Your task to perform on an android device: Show me popular games on the Play Store Image 0: 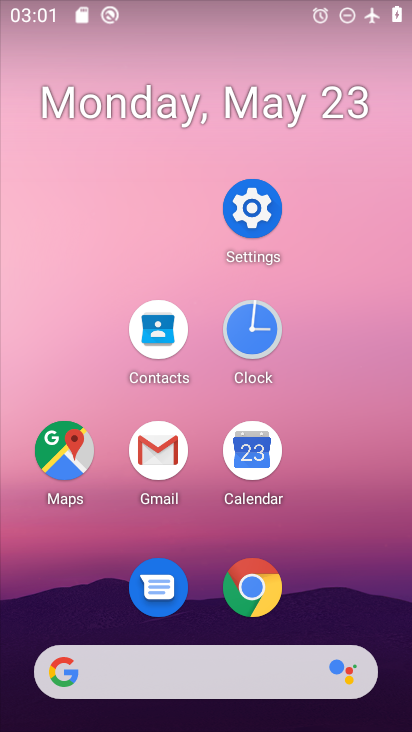
Step 0: click (363, 596)
Your task to perform on an android device: Show me popular games on the Play Store Image 1: 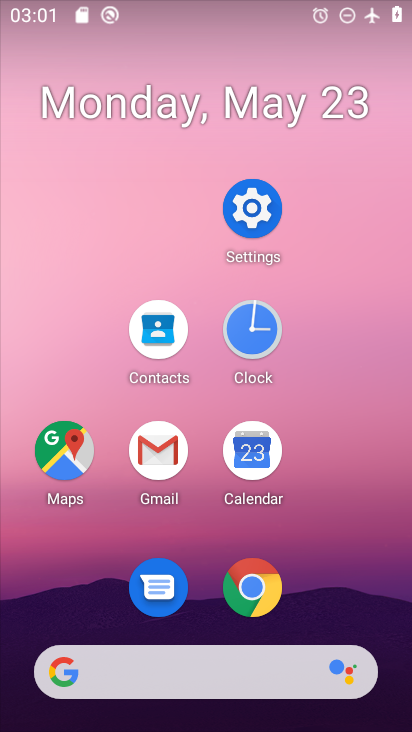
Step 1: click (249, 202)
Your task to perform on an android device: Show me popular games on the Play Store Image 2: 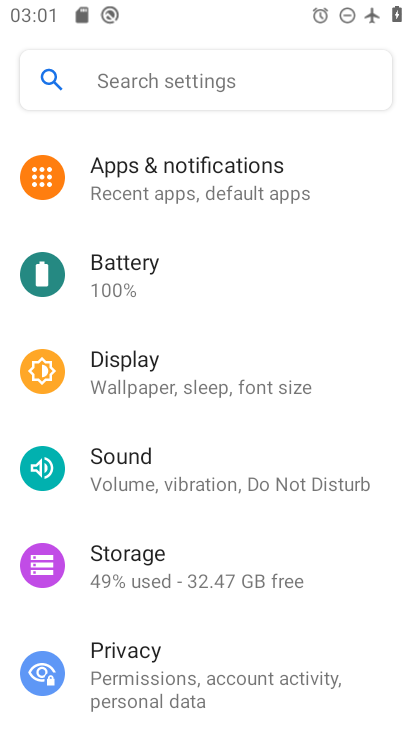
Step 2: drag from (249, 693) to (262, 366)
Your task to perform on an android device: Show me popular games on the Play Store Image 3: 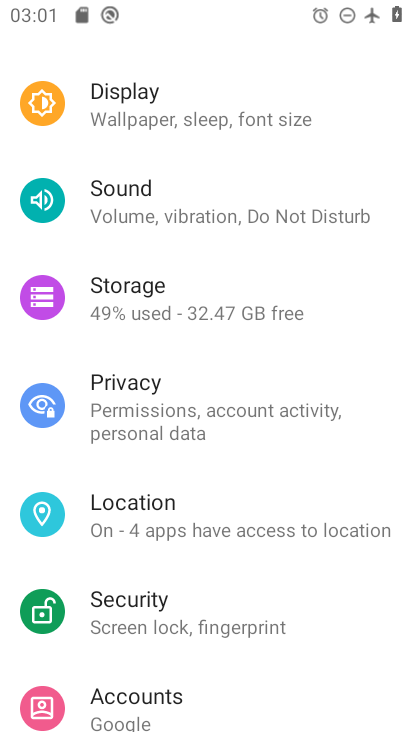
Step 3: drag from (209, 290) to (191, 661)
Your task to perform on an android device: Show me popular games on the Play Store Image 4: 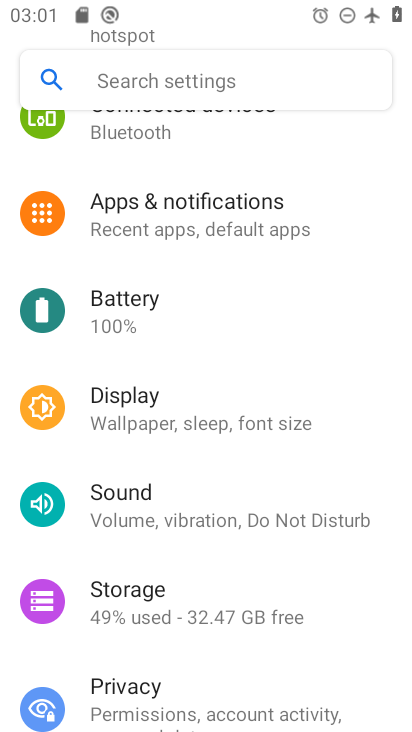
Step 4: drag from (230, 208) to (212, 722)
Your task to perform on an android device: Show me popular games on the Play Store Image 5: 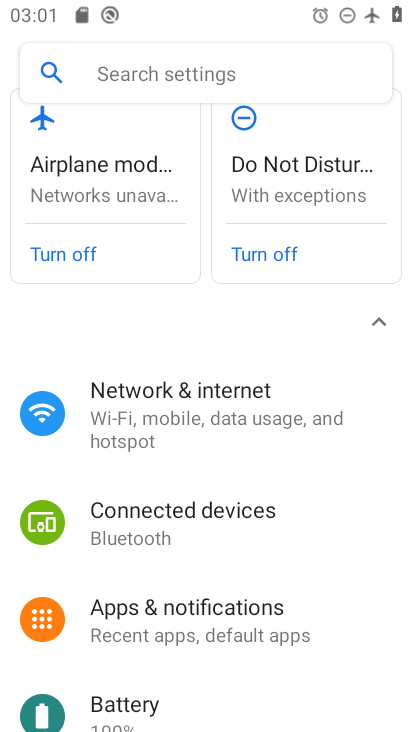
Step 5: click (236, 413)
Your task to perform on an android device: Show me popular games on the Play Store Image 6: 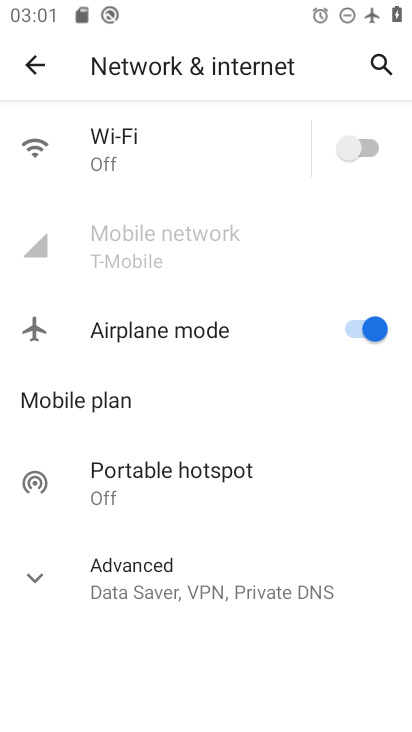
Step 6: click (362, 323)
Your task to perform on an android device: Show me popular games on the Play Store Image 7: 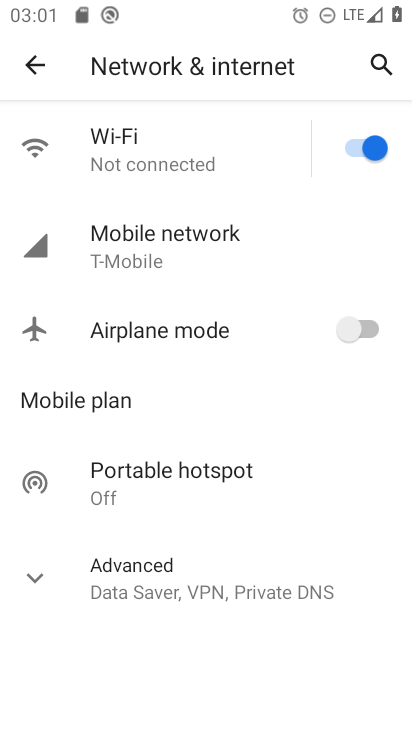
Step 7: click (28, 64)
Your task to perform on an android device: Show me popular games on the Play Store Image 8: 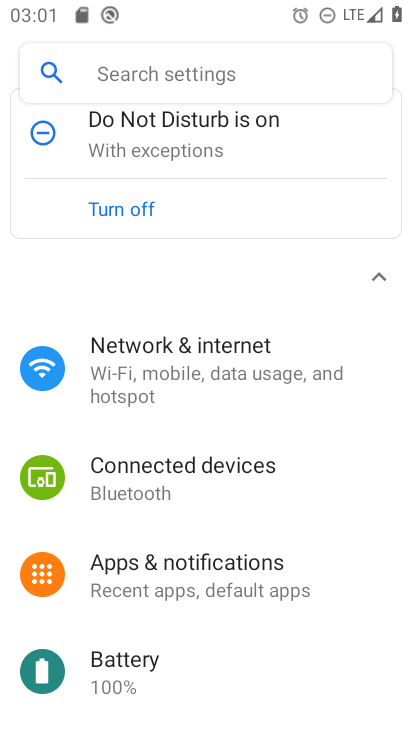
Step 8: drag from (194, 590) to (305, 294)
Your task to perform on an android device: Show me popular games on the Play Store Image 9: 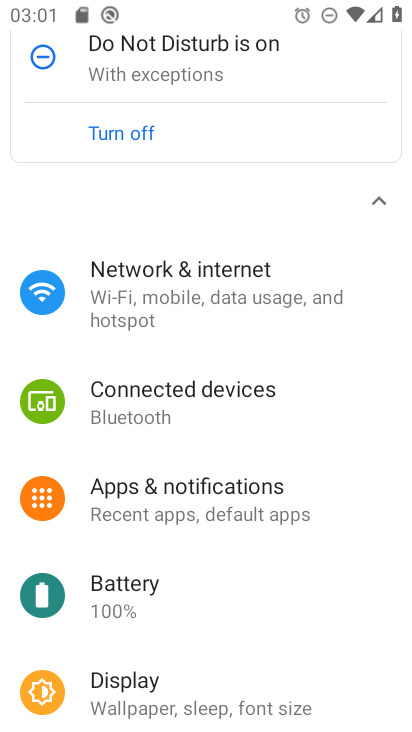
Step 9: press home button
Your task to perform on an android device: Show me popular games on the Play Store Image 10: 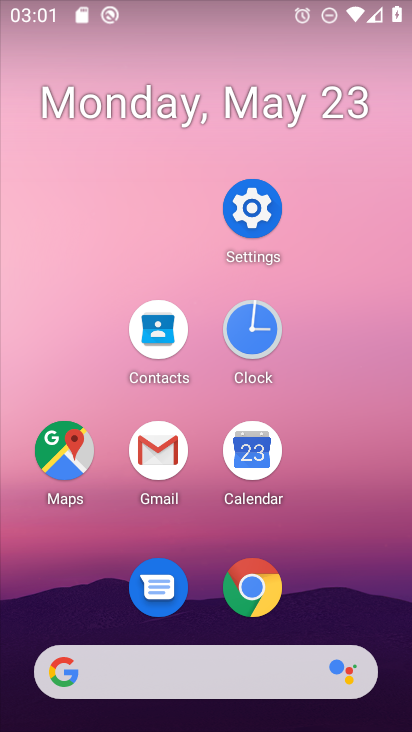
Step 10: drag from (347, 576) to (336, 250)
Your task to perform on an android device: Show me popular games on the Play Store Image 11: 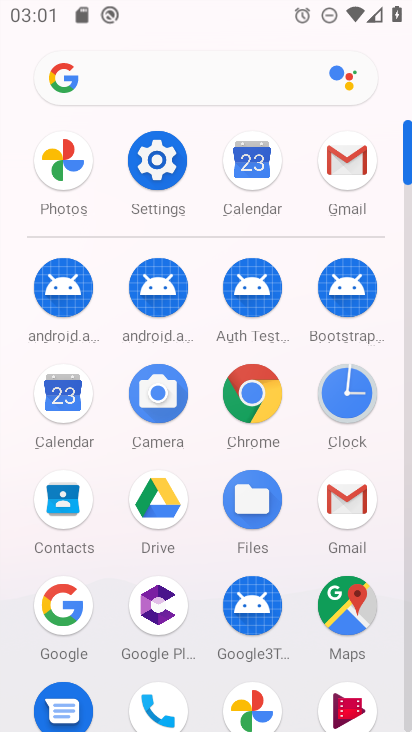
Step 11: click (408, 715)
Your task to perform on an android device: Show me popular games on the Play Store Image 12: 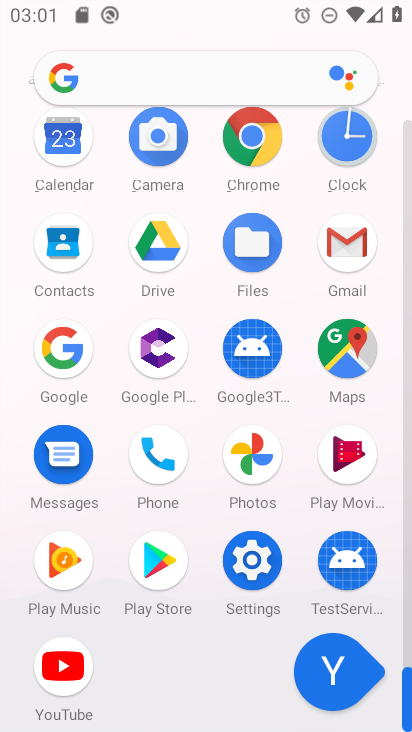
Step 12: click (408, 715)
Your task to perform on an android device: Show me popular games on the Play Store Image 13: 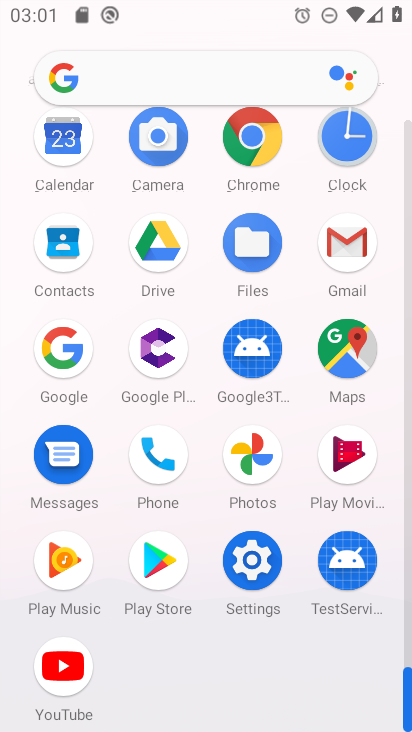
Step 13: click (132, 600)
Your task to perform on an android device: Show me popular games on the Play Store Image 14: 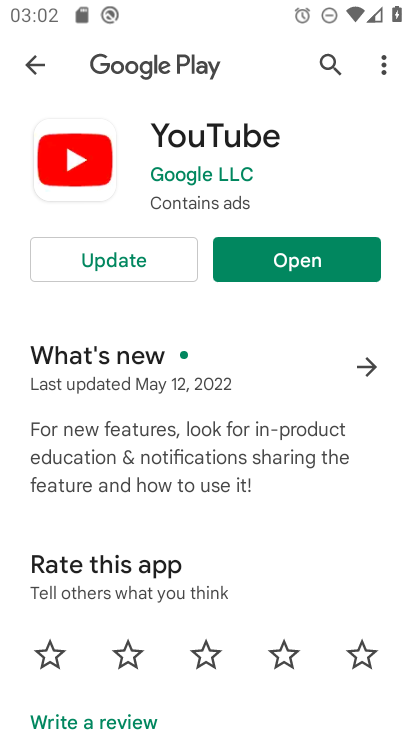
Step 14: click (55, 230)
Your task to perform on an android device: Show me popular games on the Play Store Image 15: 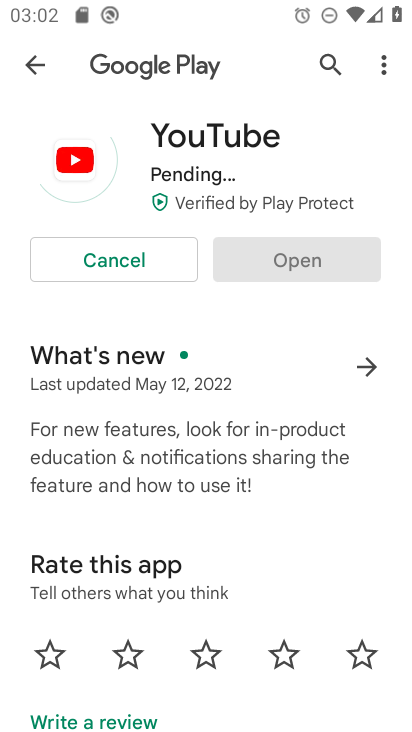
Step 15: click (62, 254)
Your task to perform on an android device: Show me popular games on the Play Store Image 16: 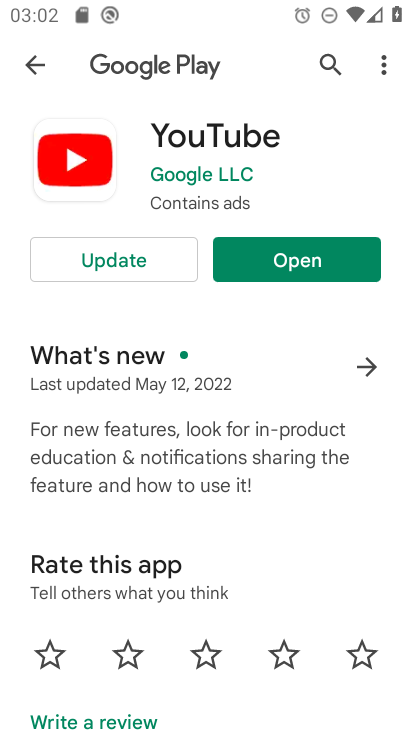
Step 16: click (74, 276)
Your task to perform on an android device: Show me popular games on the Play Store Image 17: 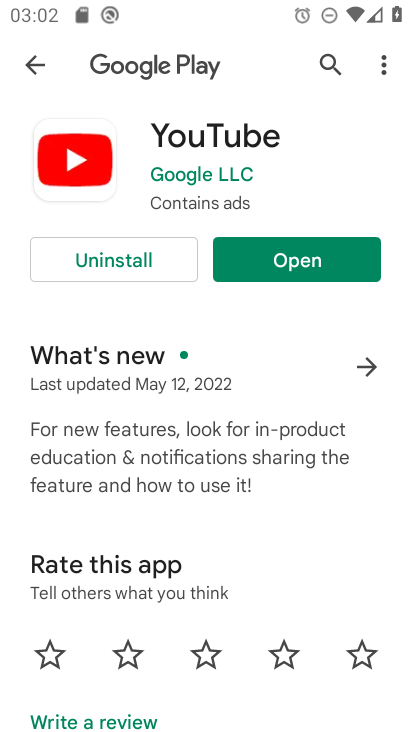
Step 17: click (285, 261)
Your task to perform on an android device: Show me popular games on the Play Store Image 18: 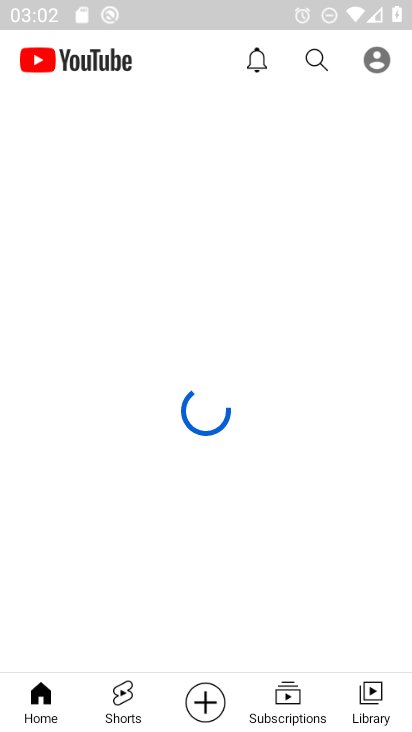
Step 18: press home button
Your task to perform on an android device: Show me popular games on the Play Store Image 19: 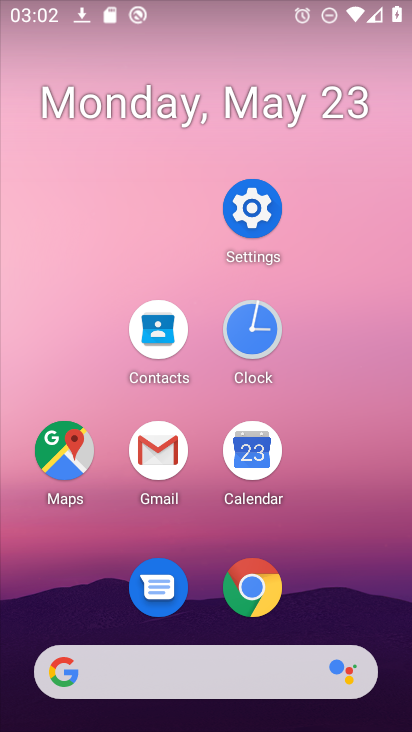
Step 19: drag from (342, 572) to (336, 89)
Your task to perform on an android device: Show me popular games on the Play Store Image 20: 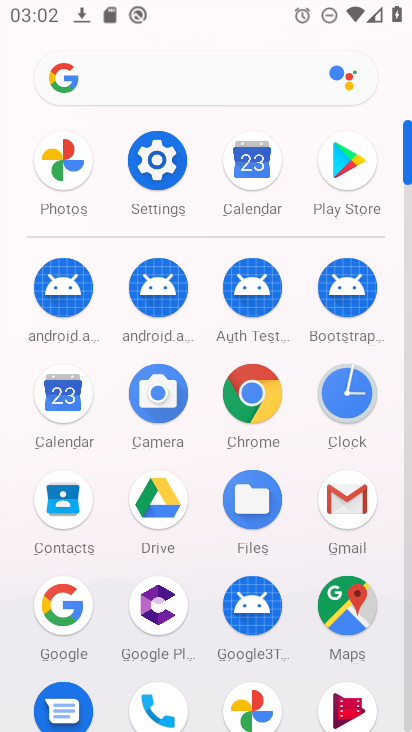
Step 20: click (332, 154)
Your task to perform on an android device: Show me popular games on the Play Store Image 21: 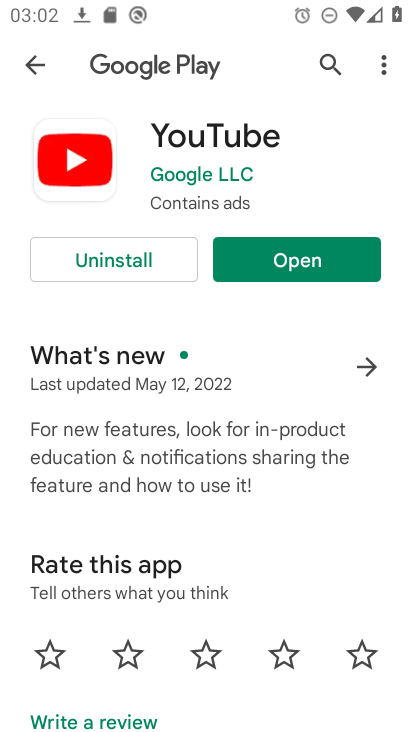
Step 21: click (31, 68)
Your task to perform on an android device: Show me popular games on the Play Store Image 22: 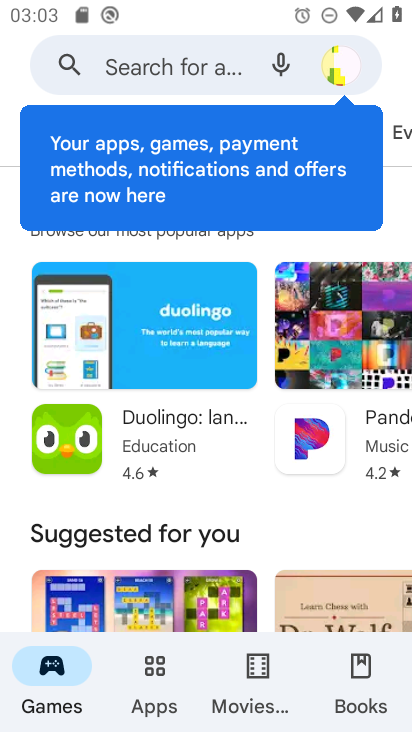
Step 22: click (88, 683)
Your task to perform on an android device: Show me popular games on the Play Store Image 23: 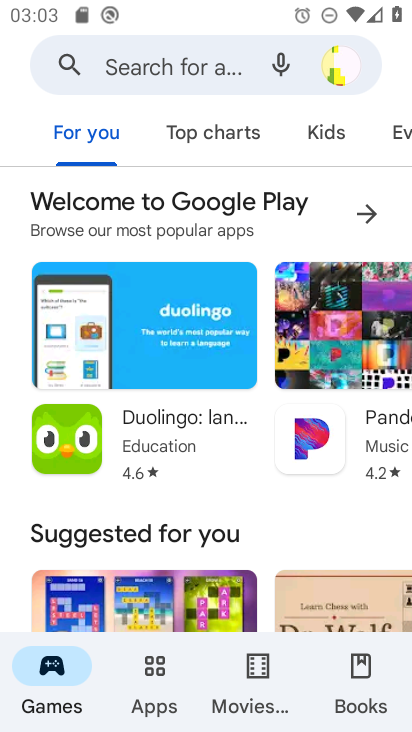
Step 23: click (88, 683)
Your task to perform on an android device: Show me popular games on the Play Store Image 24: 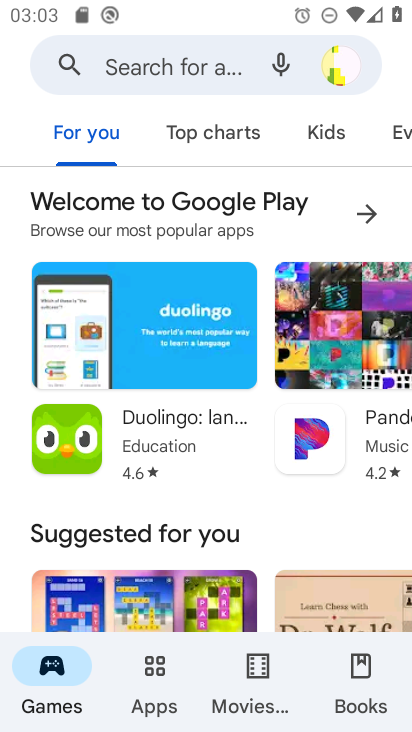
Step 24: click (226, 128)
Your task to perform on an android device: Show me popular games on the Play Store Image 25: 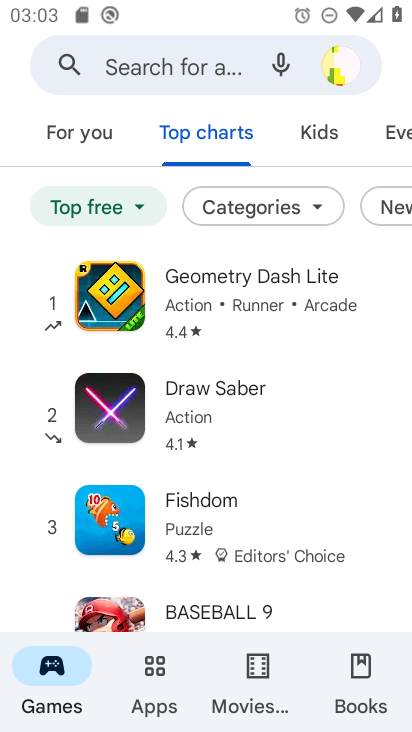
Step 25: task complete